Your task to perform on an android device: Set the phone to "Do not disturb". Image 0: 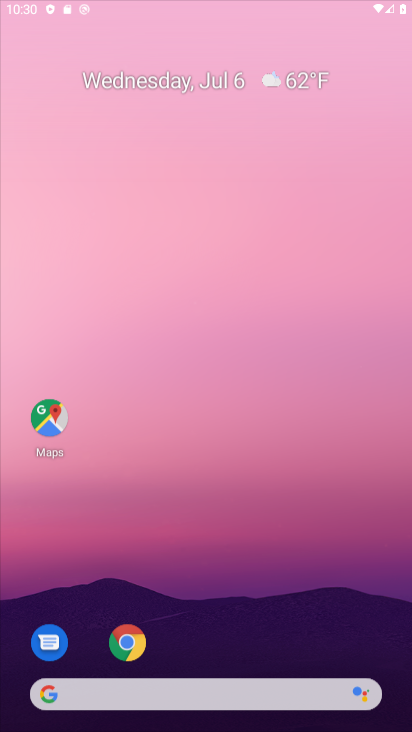
Step 0: press home button
Your task to perform on an android device: Set the phone to "Do not disturb". Image 1: 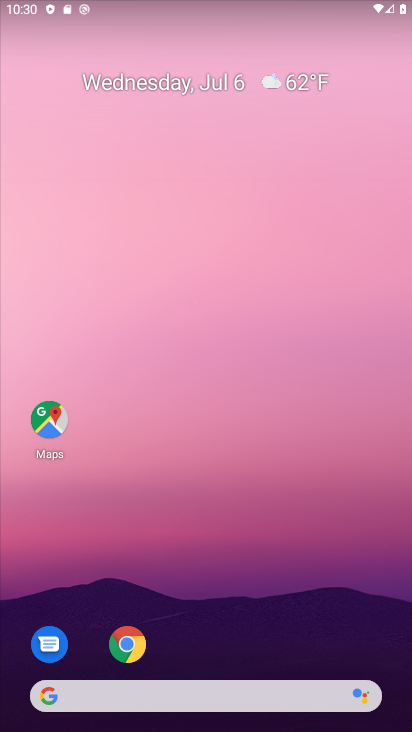
Step 1: drag from (198, 13) to (207, 544)
Your task to perform on an android device: Set the phone to "Do not disturb". Image 2: 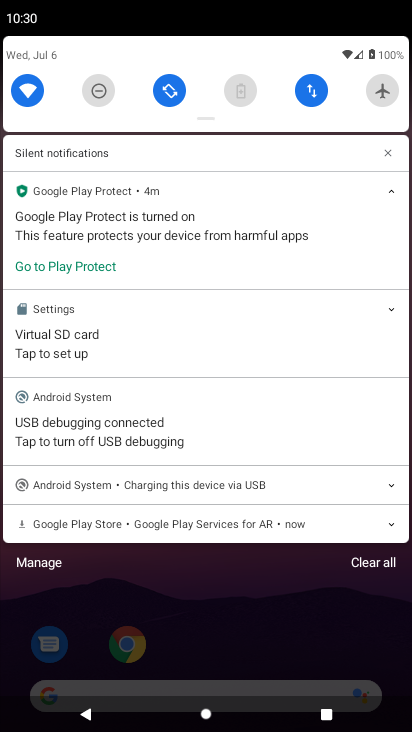
Step 2: click (100, 93)
Your task to perform on an android device: Set the phone to "Do not disturb". Image 3: 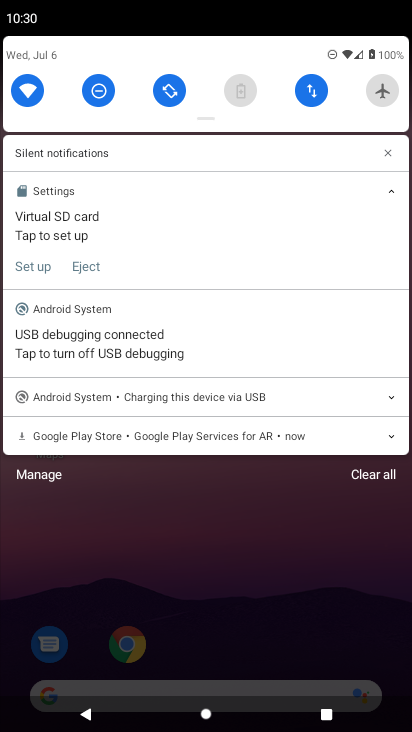
Step 3: task complete